Your task to perform on an android device: toggle notifications settings in the gmail app Image 0: 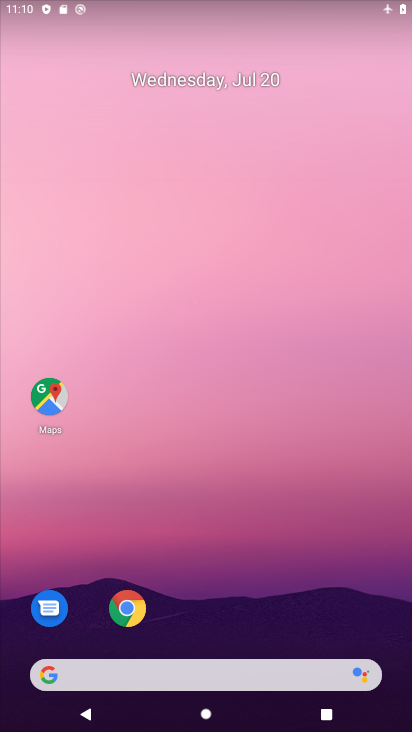
Step 0: drag from (365, 634) to (186, 39)
Your task to perform on an android device: toggle notifications settings in the gmail app Image 1: 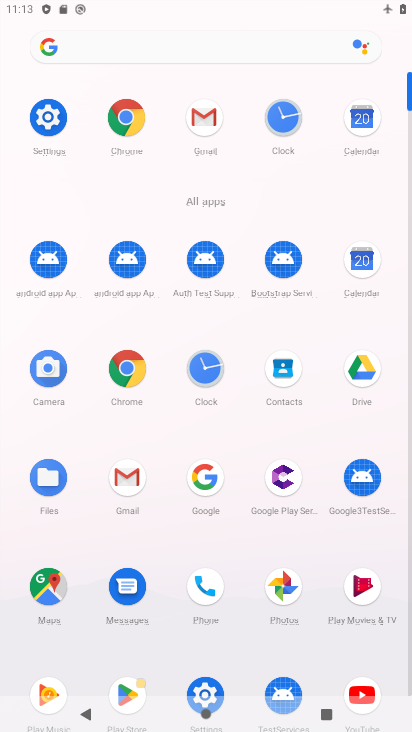
Step 1: click (121, 470)
Your task to perform on an android device: toggle notifications settings in the gmail app Image 2: 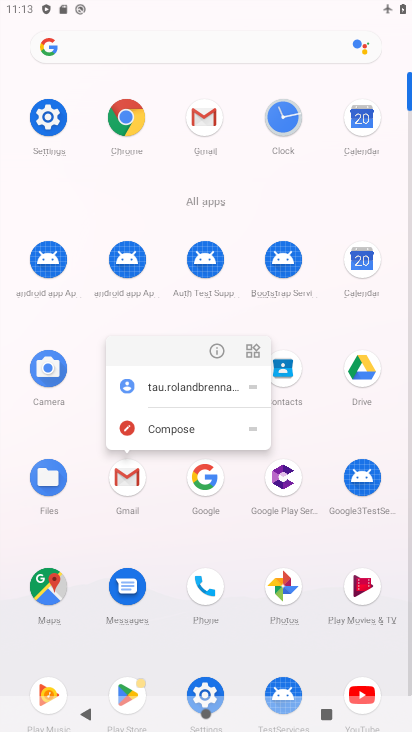
Step 2: click (121, 470)
Your task to perform on an android device: toggle notifications settings in the gmail app Image 3: 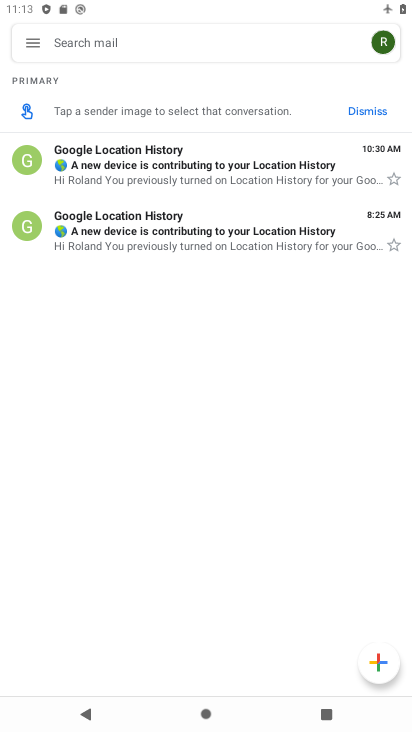
Step 3: click (34, 40)
Your task to perform on an android device: toggle notifications settings in the gmail app Image 4: 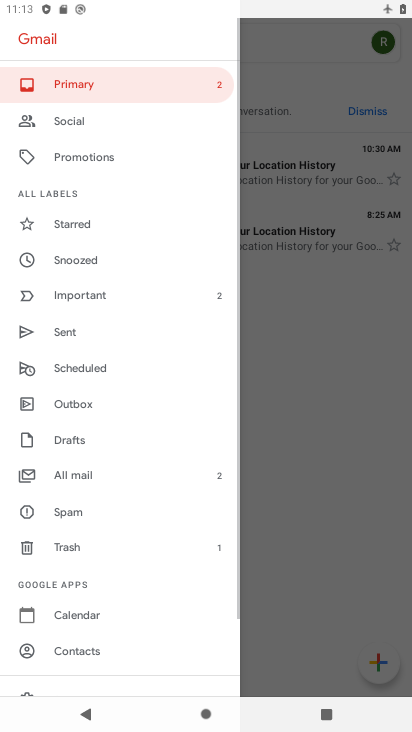
Step 4: drag from (83, 643) to (141, 57)
Your task to perform on an android device: toggle notifications settings in the gmail app Image 5: 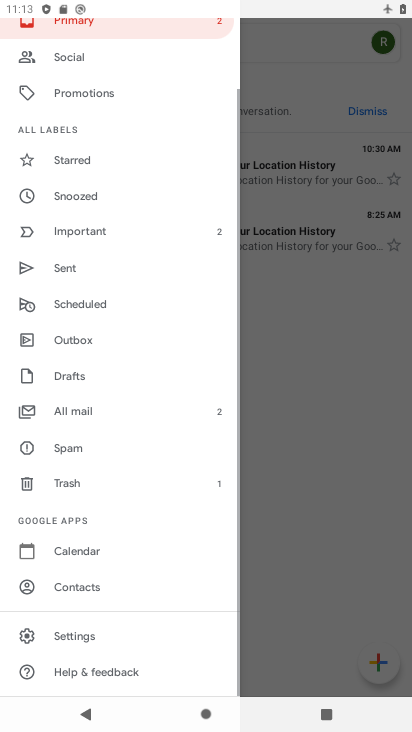
Step 5: click (103, 630)
Your task to perform on an android device: toggle notifications settings in the gmail app Image 6: 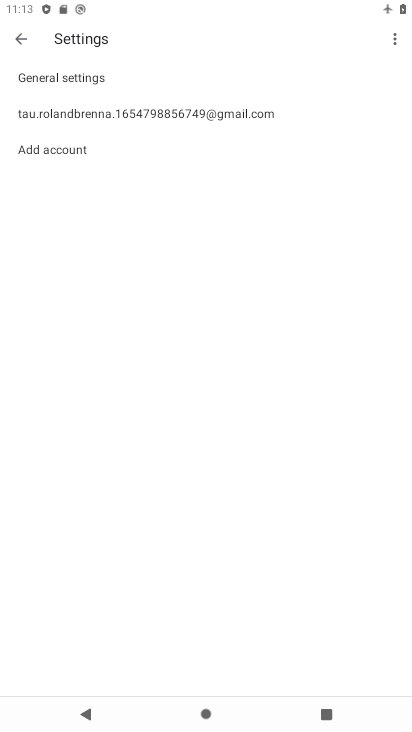
Step 6: click (174, 118)
Your task to perform on an android device: toggle notifications settings in the gmail app Image 7: 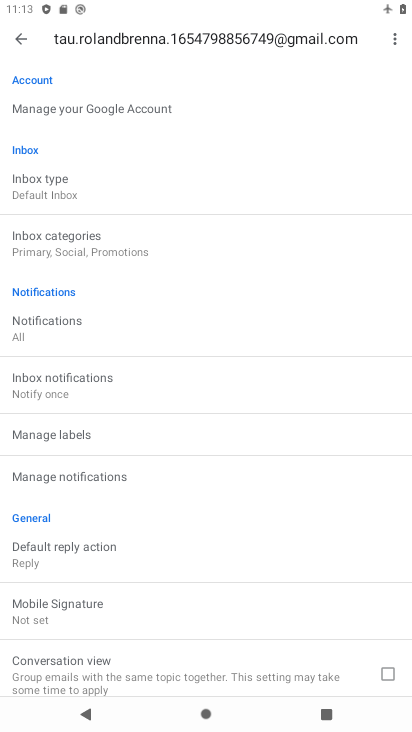
Step 7: click (57, 343)
Your task to perform on an android device: toggle notifications settings in the gmail app Image 8: 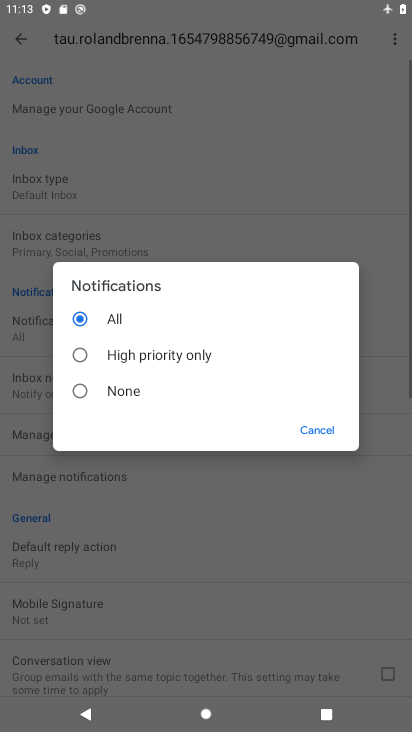
Step 8: click (102, 388)
Your task to perform on an android device: toggle notifications settings in the gmail app Image 9: 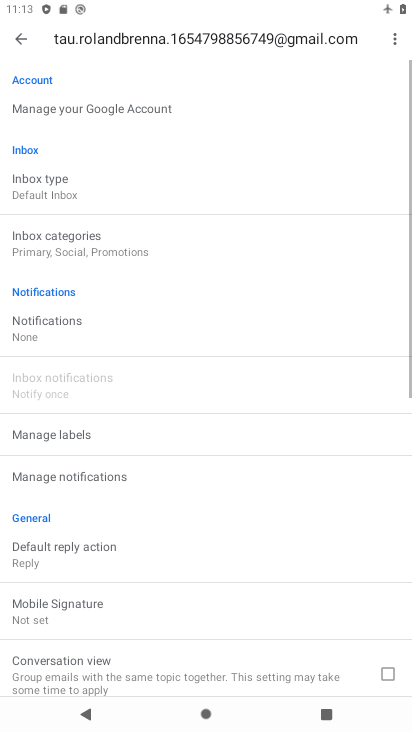
Step 9: task complete